Your task to perform on an android device: turn off data saver in the chrome app Image 0: 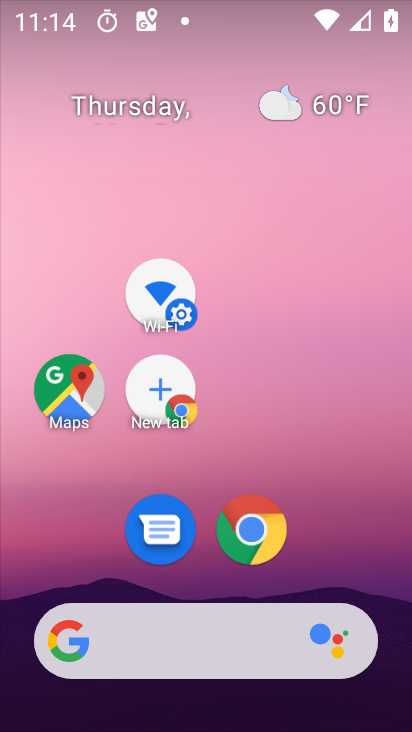
Step 0: drag from (383, 658) to (228, 69)
Your task to perform on an android device: turn off data saver in the chrome app Image 1: 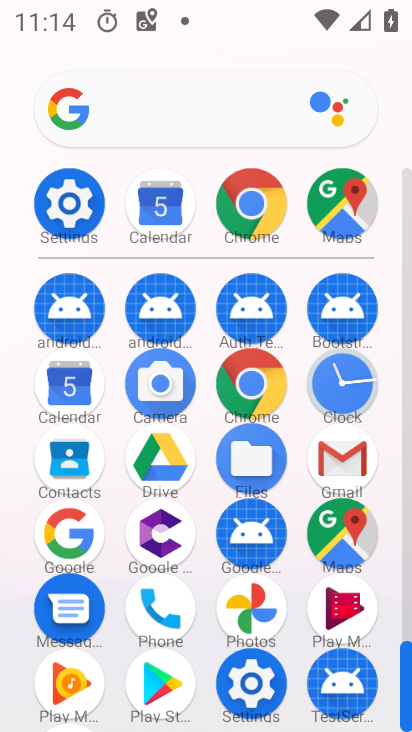
Step 1: click (261, 221)
Your task to perform on an android device: turn off data saver in the chrome app Image 2: 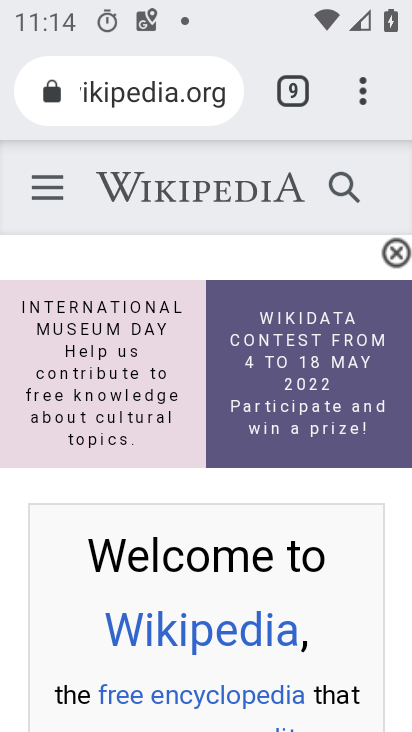
Step 2: click (349, 93)
Your task to perform on an android device: turn off data saver in the chrome app Image 3: 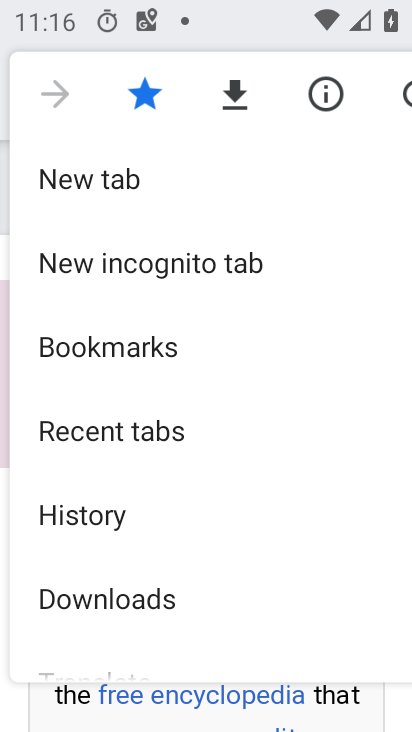
Step 3: drag from (202, 390) to (177, 174)
Your task to perform on an android device: turn off data saver in the chrome app Image 4: 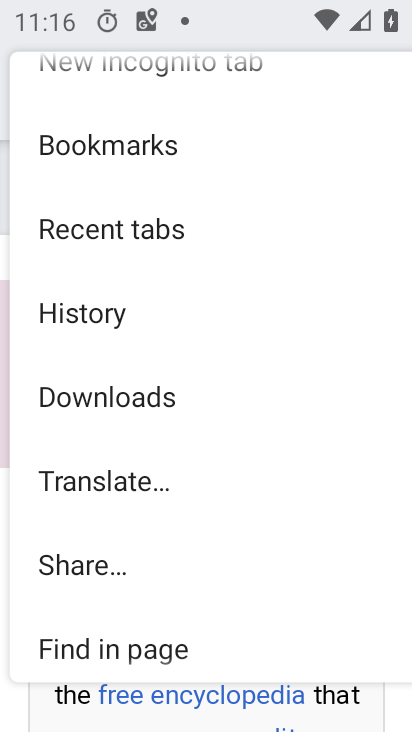
Step 4: drag from (269, 457) to (269, 174)
Your task to perform on an android device: turn off data saver in the chrome app Image 5: 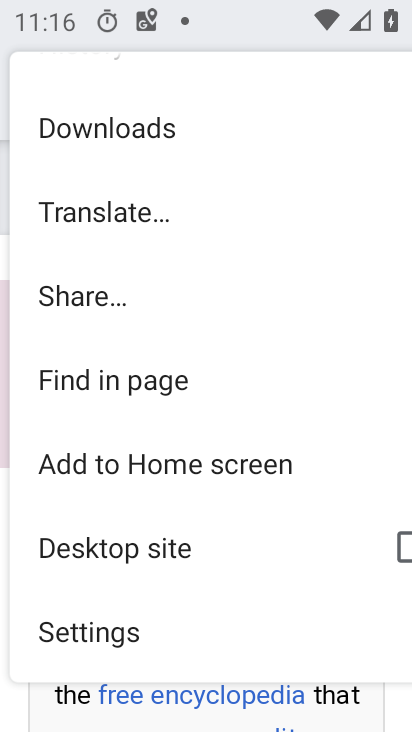
Step 5: click (91, 639)
Your task to perform on an android device: turn off data saver in the chrome app Image 6: 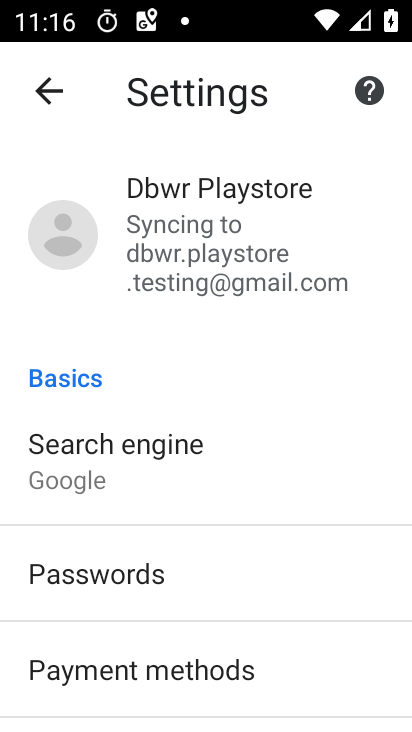
Step 6: drag from (157, 580) to (99, 218)
Your task to perform on an android device: turn off data saver in the chrome app Image 7: 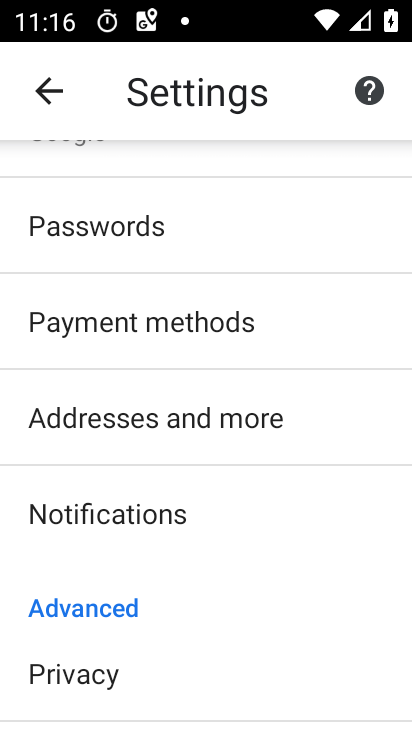
Step 7: drag from (168, 343) to (235, 180)
Your task to perform on an android device: turn off data saver in the chrome app Image 8: 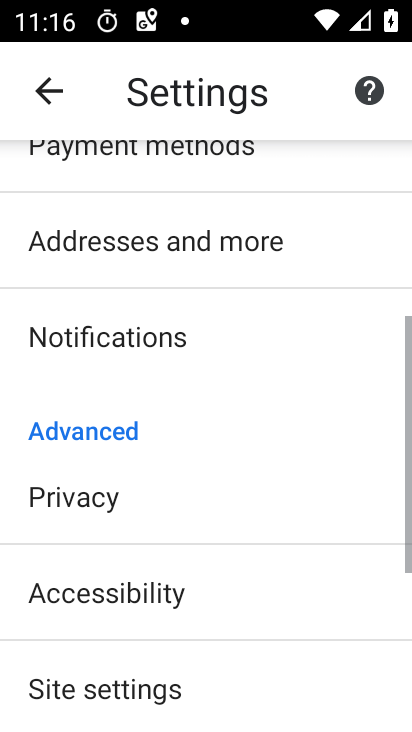
Step 8: drag from (196, 390) to (199, 184)
Your task to perform on an android device: turn off data saver in the chrome app Image 9: 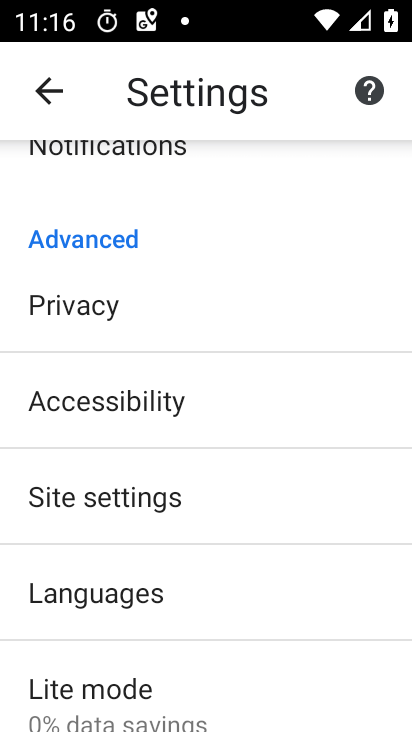
Step 9: click (95, 680)
Your task to perform on an android device: turn off data saver in the chrome app Image 10: 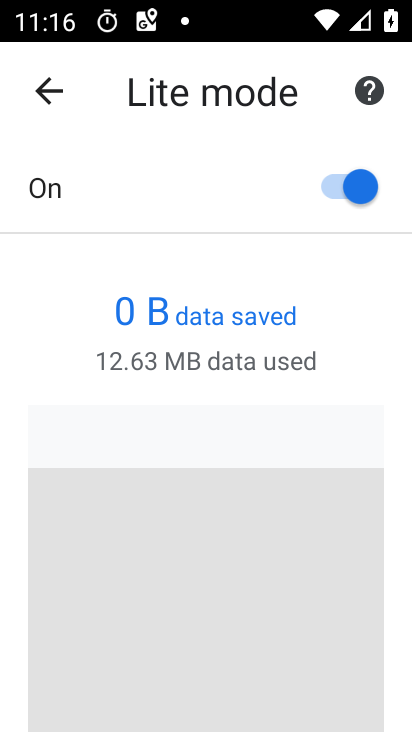
Step 10: task complete